Your task to perform on an android device: Open notification settings Image 0: 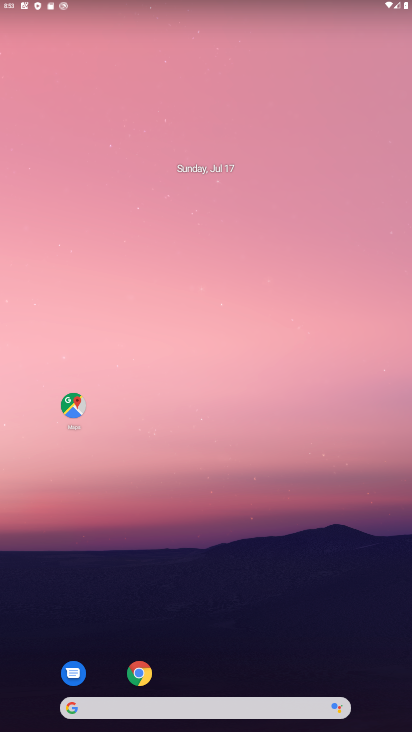
Step 0: drag from (230, 498) to (186, 91)
Your task to perform on an android device: Open notification settings Image 1: 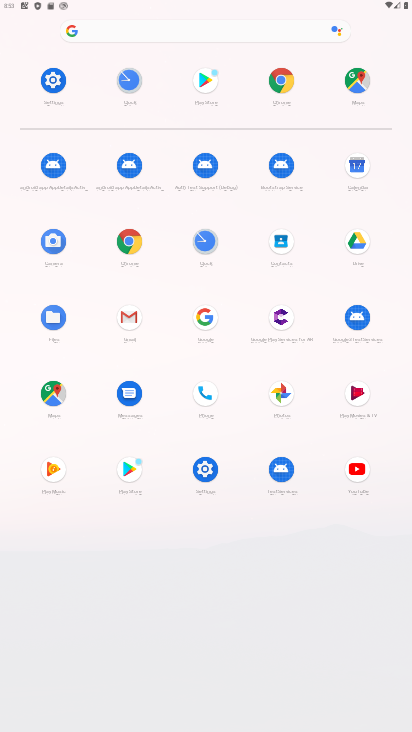
Step 1: click (64, 75)
Your task to perform on an android device: Open notification settings Image 2: 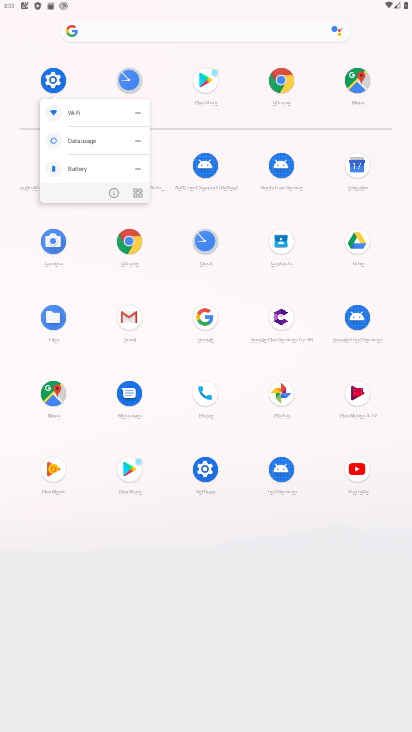
Step 2: click (55, 83)
Your task to perform on an android device: Open notification settings Image 3: 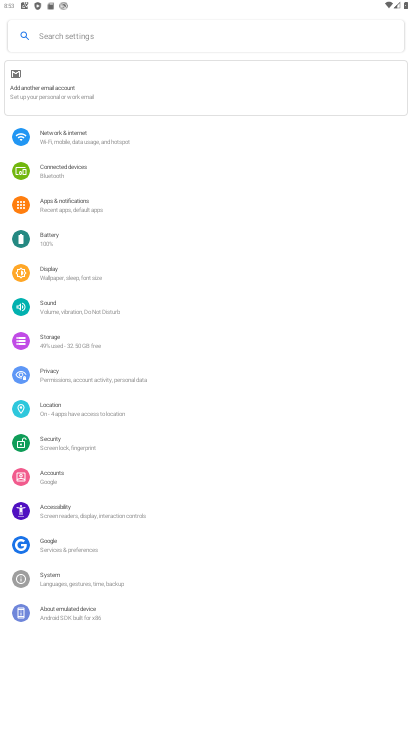
Step 3: click (93, 215)
Your task to perform on an android device: Open notification settings Image 4: 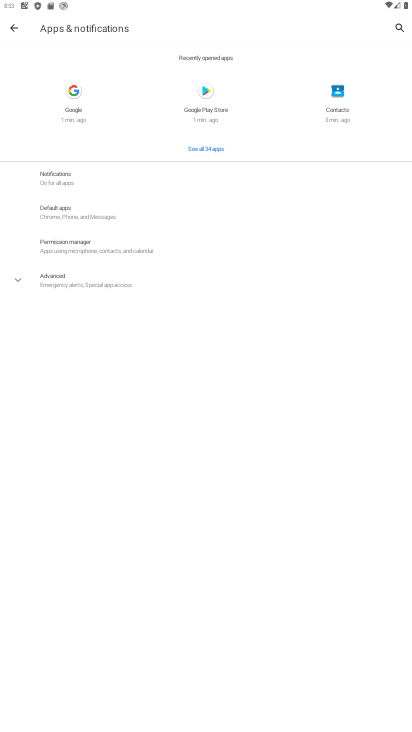
Step 4: click (61, 174)
Your task to perform on an android device: Open notification settings Image 5: 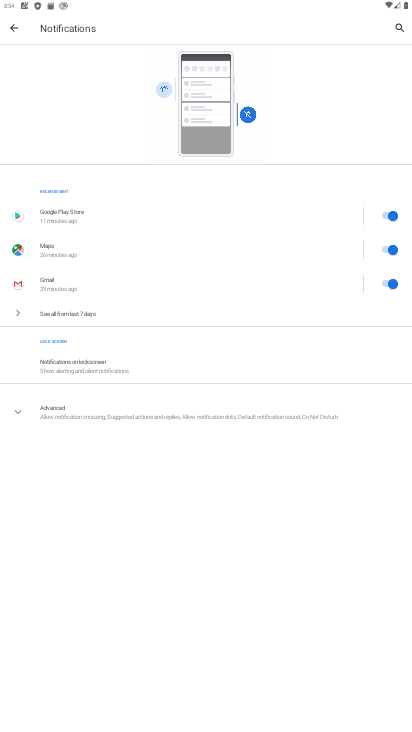
Step 5: task complete